Your task to perform on an android device: Open calendar and show me the third week of next month Image 0: 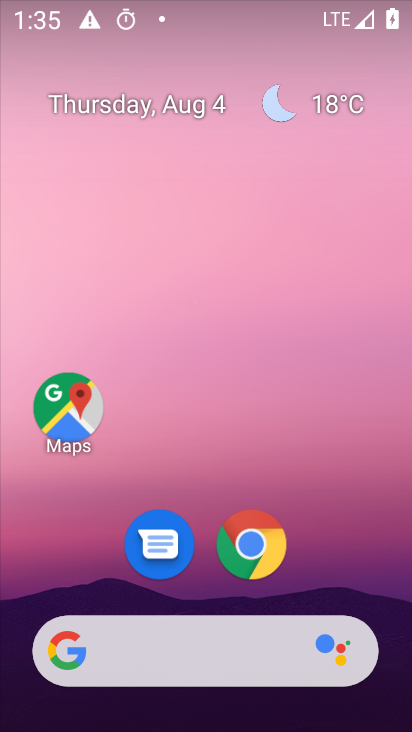
Step 0: drag from (388, 691) to (259, 57)
Your task to perform on an android device: Open calendar and show me the third week of next month Image 1: 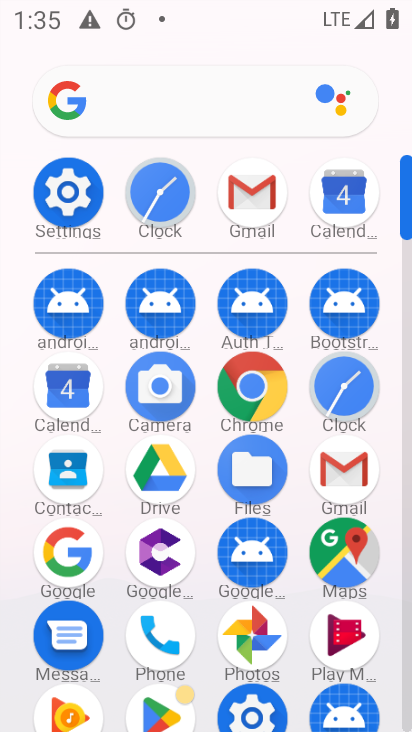
Step 1: click (71, 396)
Your task to perform on an android device: Open calendar and show me the third week of next month Image 2: 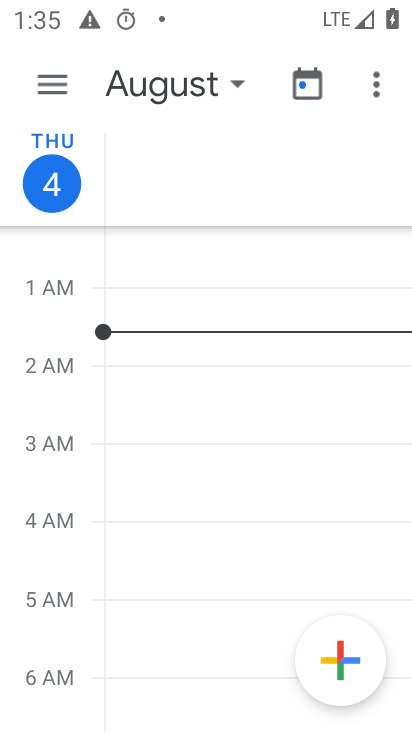
Step 2: click (230, 79)
Your task to perform on an android device: Open calendar and show me the third week of next month Image 3: 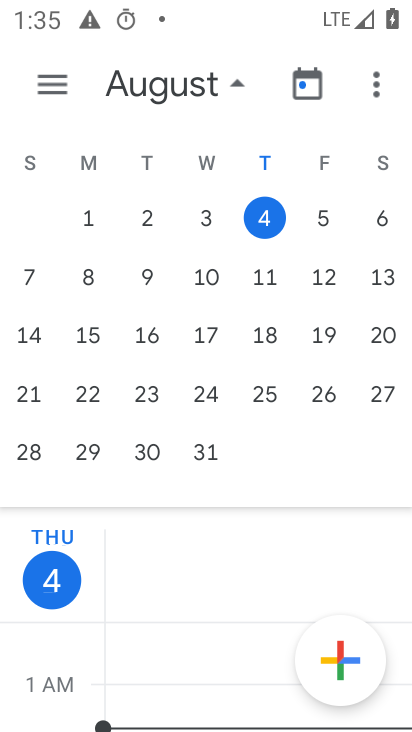
Step 3: drag from (391, 274) to (93, 238)
Your task to perform on an android device: Open calendar and show me the third week of next month Image 4: 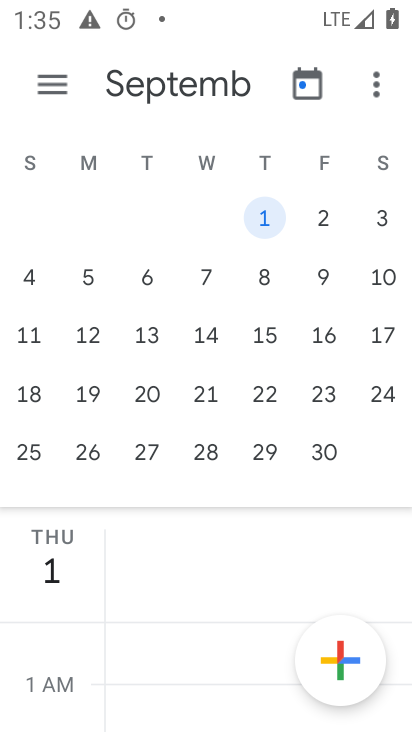
Step 4: click (261, 342)
Your task to perform on an android device: Open calendar and show me the third week of next month Image 5: 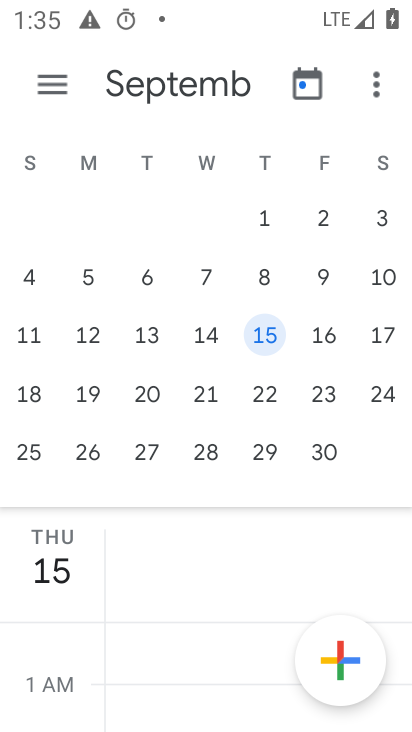
Step 5: click (59, 77)
Your task to perform on an android device: Open calendar and show me the third week of next month Image 6: 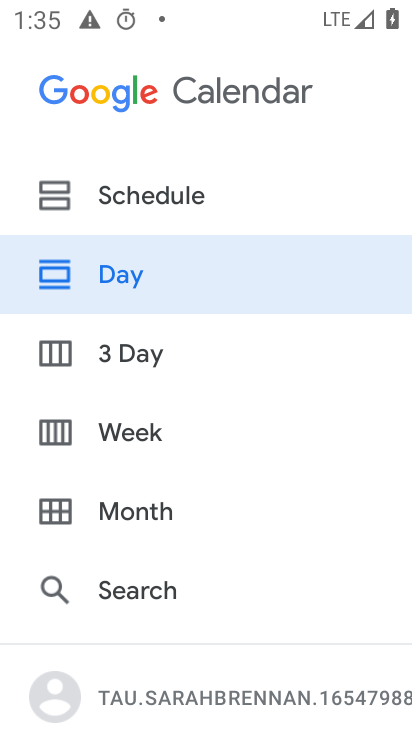
Step 6: click (122, 436)
Your task to perform on an android device: Open calendar and show me the third week of next month Image 7: 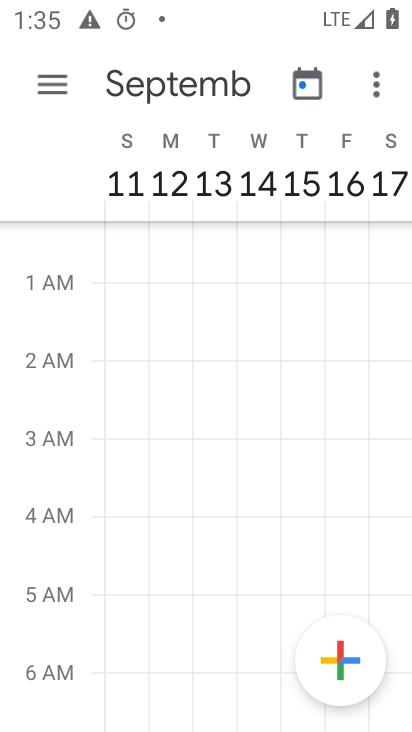
Step 7: task complete